Your task to perform on an android device: Open Google Chrome and open the bookmarks view Image 0: 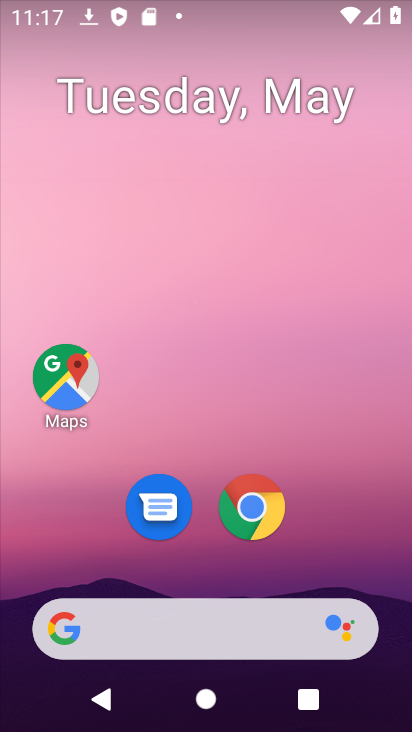
Step 0: drag from (255, 691) to (185, 89)
Your task to perform on an android device: Open Google Chrome and open the bookmarks view Image 1: 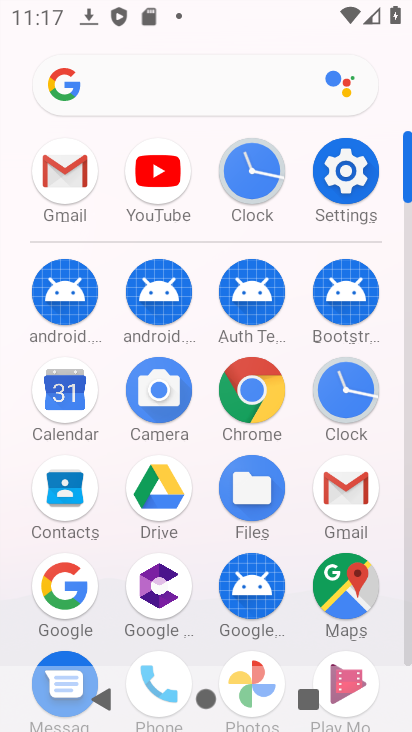
Step 1: click (253, 396)
Your task to perform on an android device: Open Google Chrome and open the bookmarks view Image 2: 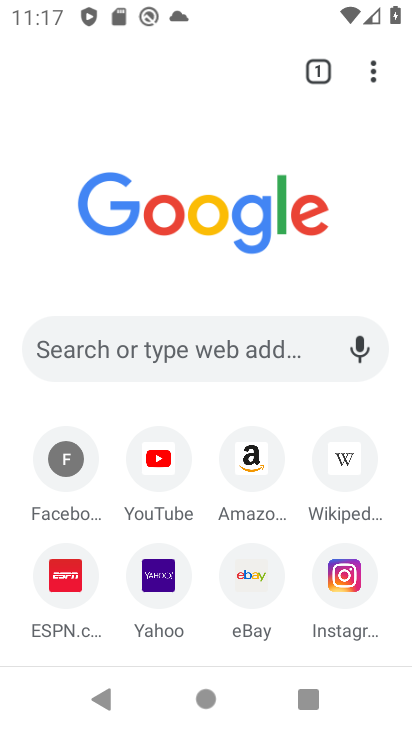
Step 2: drag from (367, 72) to (125, 276)
Your task to perform on an android device: Open Google Chrome and open the bookmarks view Image 3: 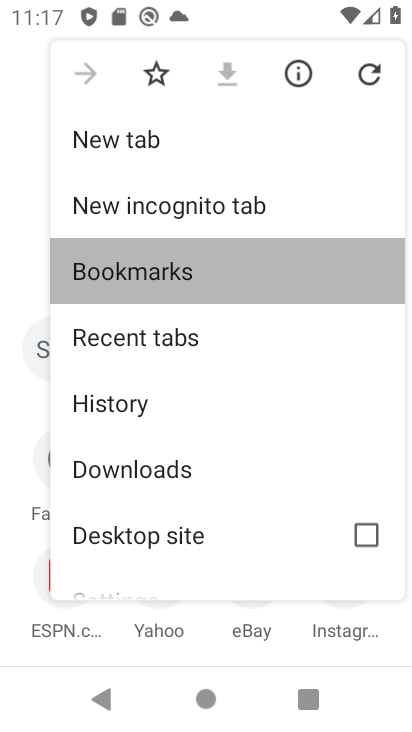
Step 3: click (125, 276)
Your task to perform on an android device: Open Google Chrome and open the bookmarks view Image 4: 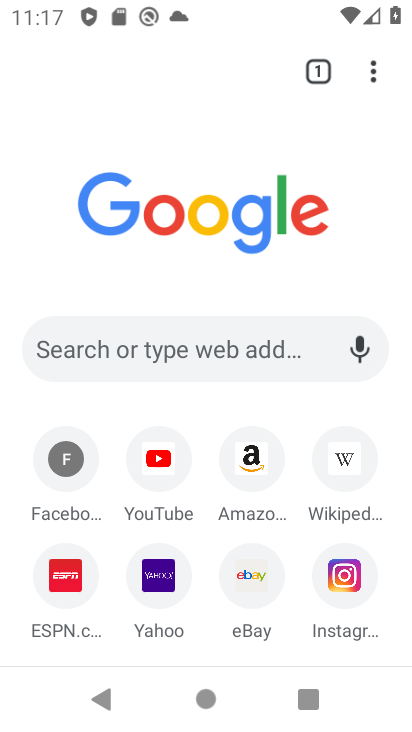
Step 4: click (125, 276)
Your task to perform on an android device: Open Google Chrome and open the bookmarks view Image 5: 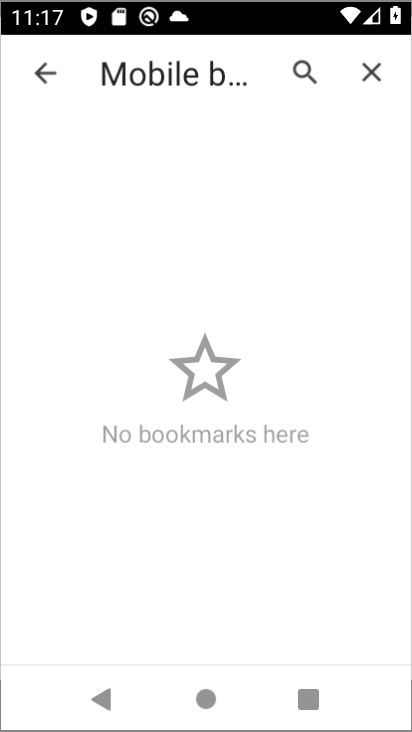
Step 5: click (126, 275)
Your task to perform on an android device: Open Google Chrome and open the bookmarks view Image 6: 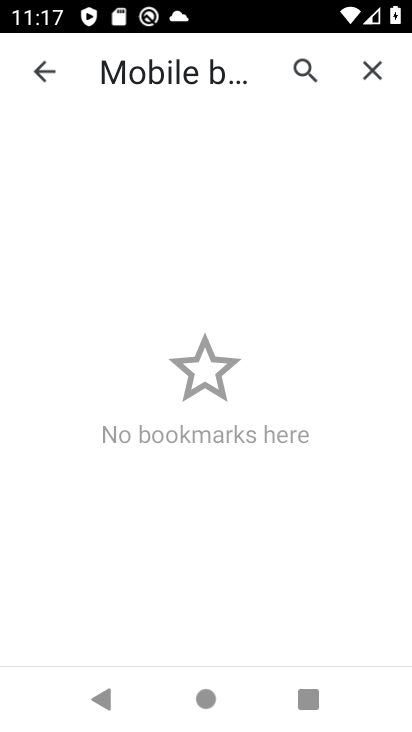
Step 6: task complete